Your task to perform on an android device: Open Google Maps Image 0: 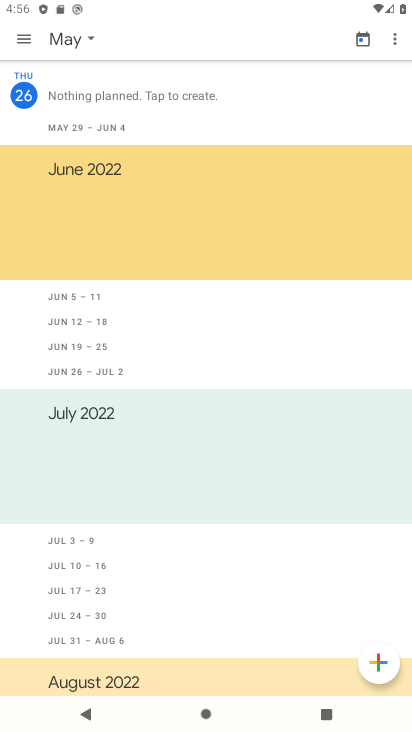
Step 0: press home button
Your task to perform on an android device: Open Google Maps Image 1: 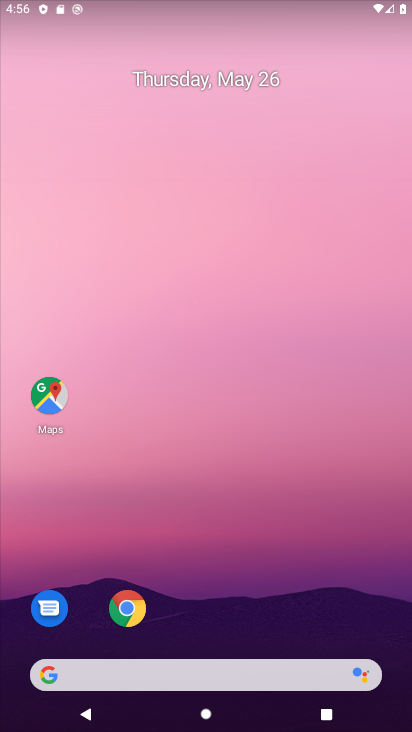
Step 1: drag from (185, 643) to (273, 193)
Your task to perform on an android device: Open Google Maps Image 2: 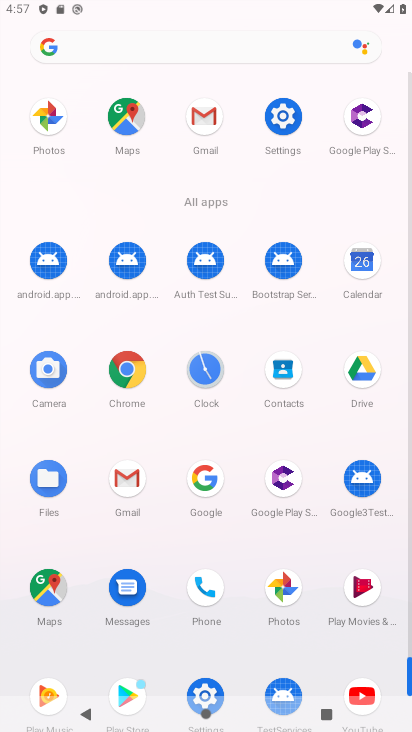
Step 2: click (57, 588)
Your task to perform on an android device: Open Google Maps Image 3: 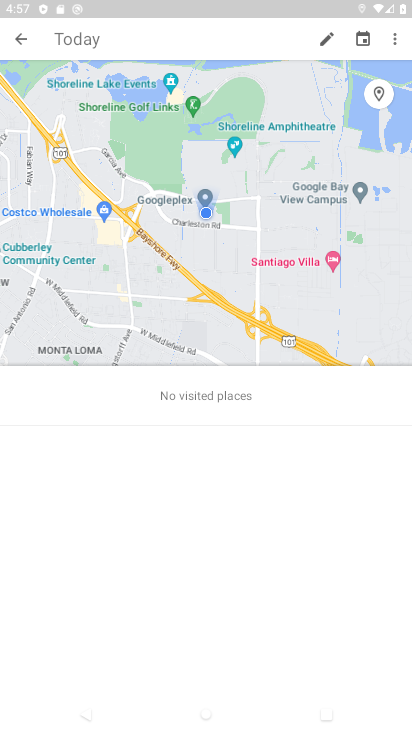
Step 3: task complete